Your task to perform on an android device: set an alarm Image 0: 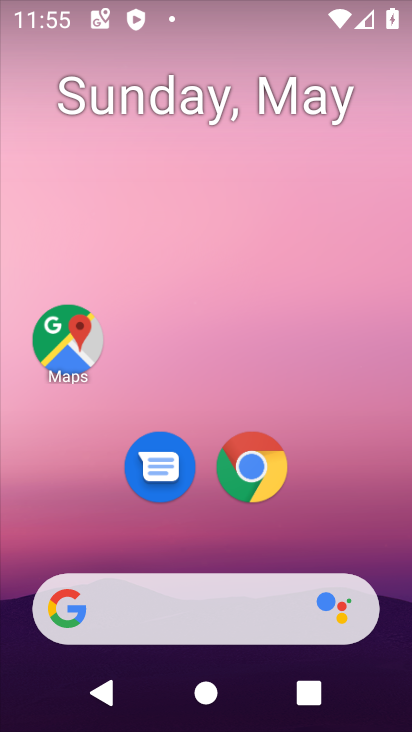
Step 0: drag from (397, 613) to (251, 73)
Your task to perform on an android device: set an alarm Image 1: 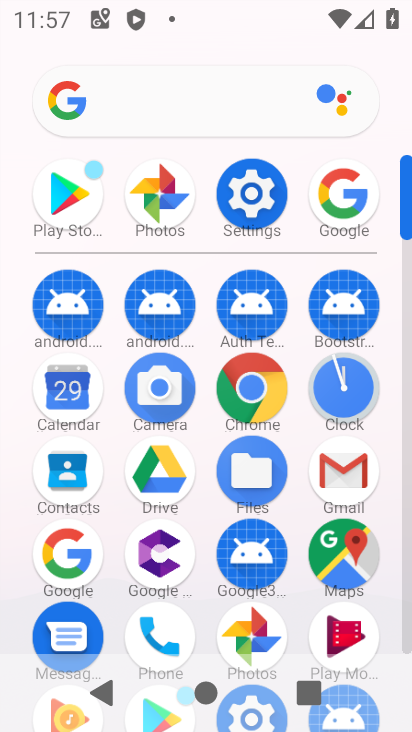
Step 1: click (323, 405)
Your task to perform on an android device: set an alarm Image 2: 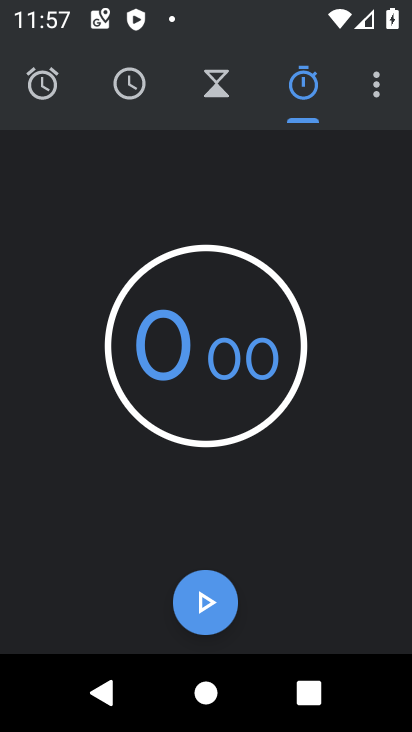
Step 2: click (27, 93)
Your task to perform on an android device: set an alarm Image 3: 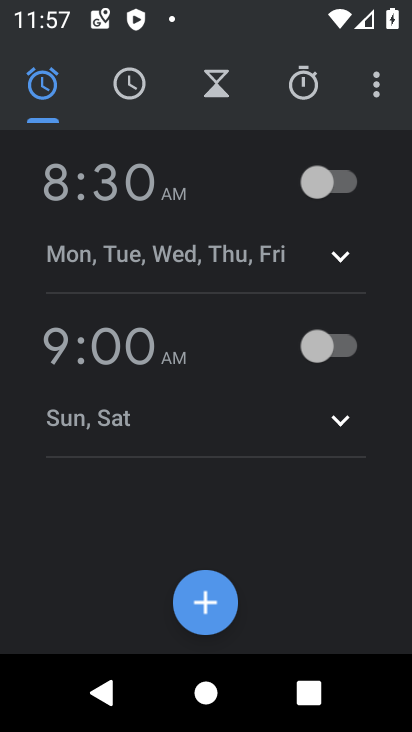
Step 3: click (342, 195)
Your task to perform on an android device: set an alarm Image 4: 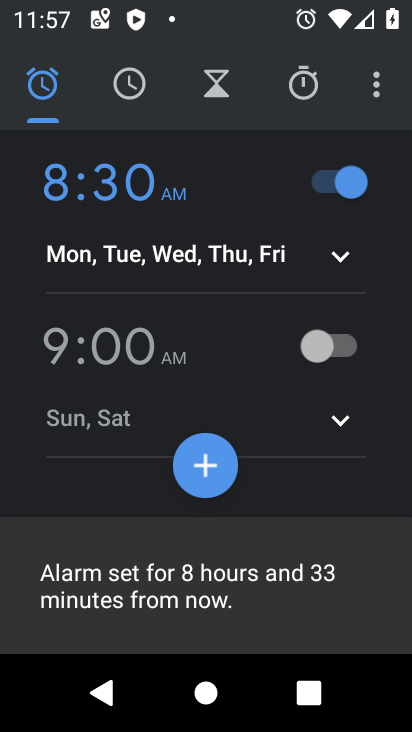
Step 4: task complete